Your task to perform on an android device: empty trash in the gmail app Image 0: 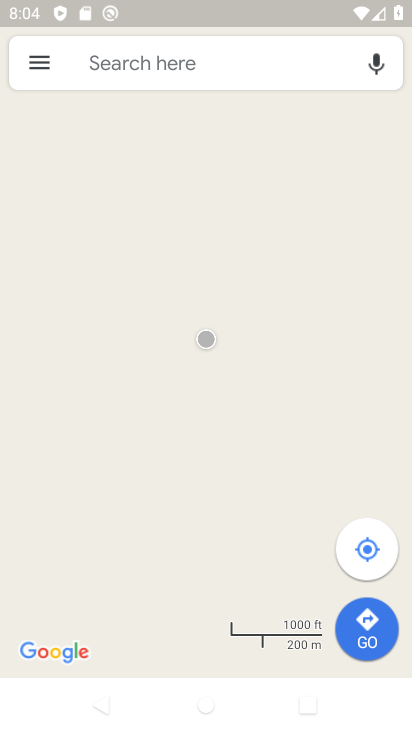
Step 0: press home button
Your task to perform on an android device: empty trash in the gmail app Image 1: 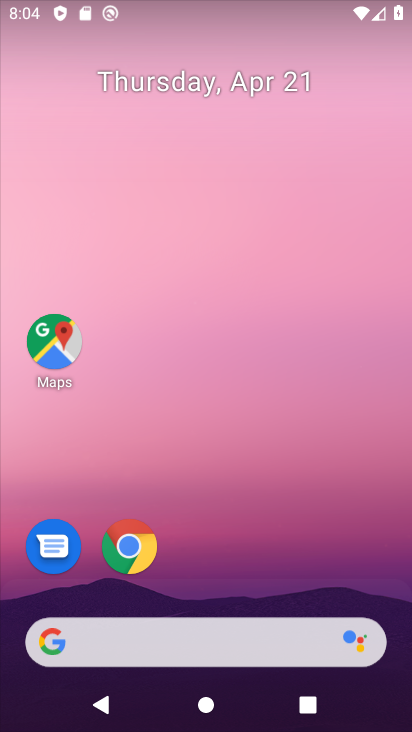
Step 1: drag from (198, 594) to (215, 4)
Your task to perform on an android device: empty trash in the gmail app Image 2: 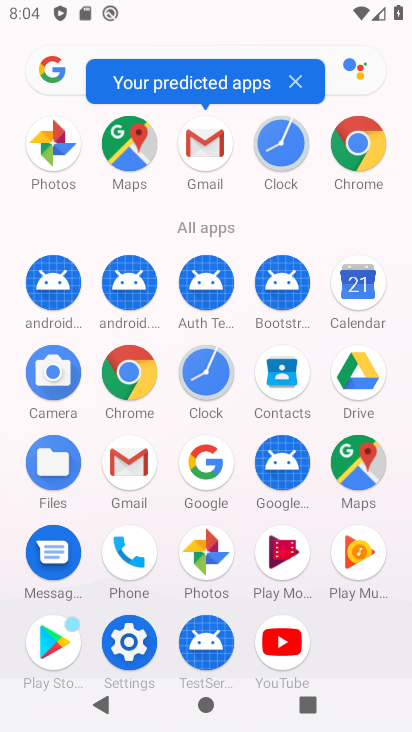
Step 2: click (204, 156)
Your task to perform on an android device: empty trash in the gmail app Image 3: 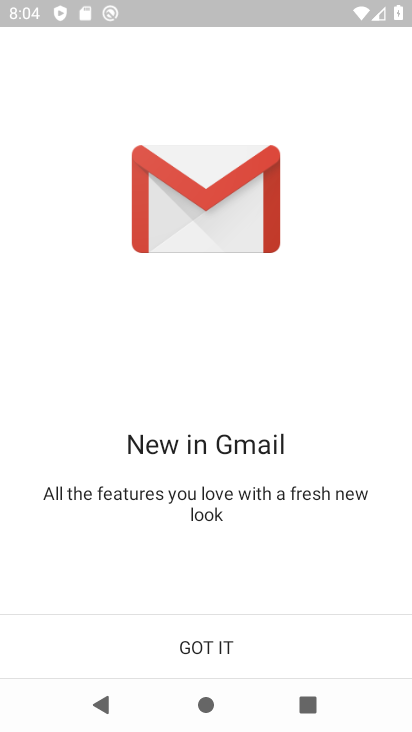
Step 3: click (204, 632)
Your task to perform on an android device: empty trash in the gmail app Image 4: 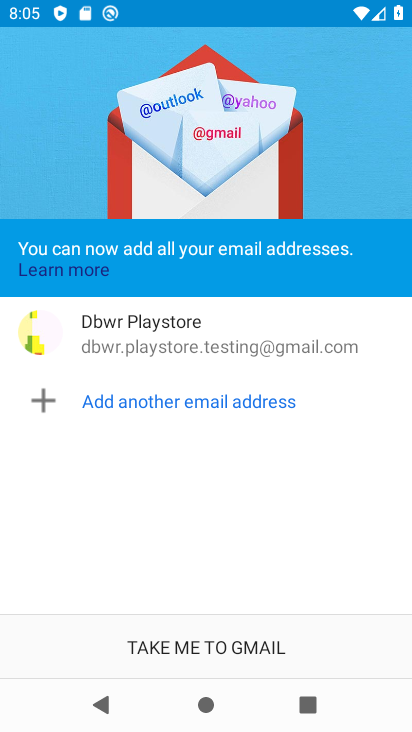
Step 4: click (202, 642)
Your task to perform on an android device: empty trash in the gmail app Image 5: 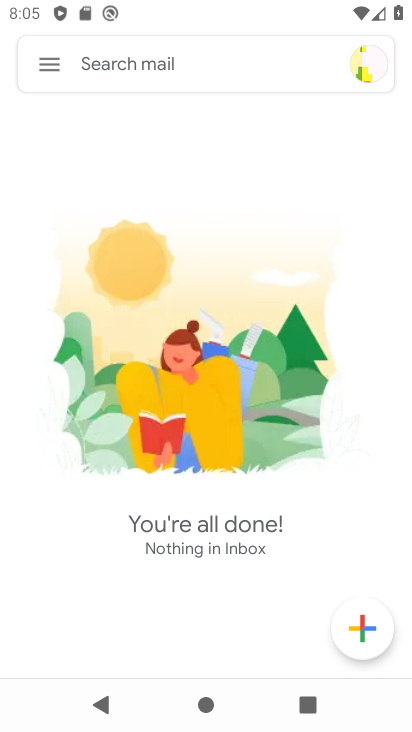
Step 5: click (53, 73)
Your task to perform on an android device: empty trash in the gmail app Image 6: 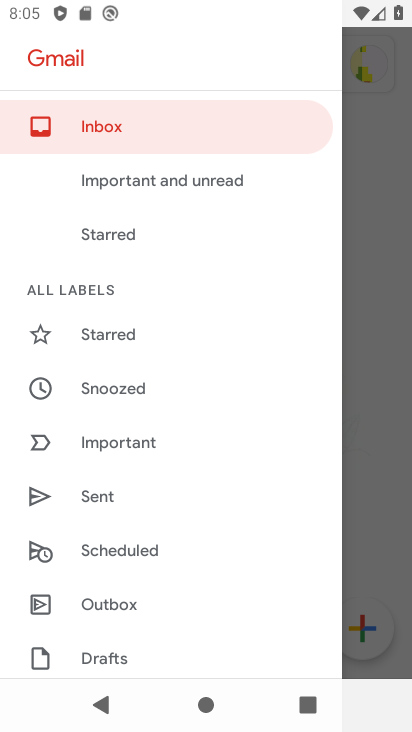
Step 6: drag from (97, 600) to (147, 287)
Your task to perform on an android device: empty trash in the gmail app Image 7: 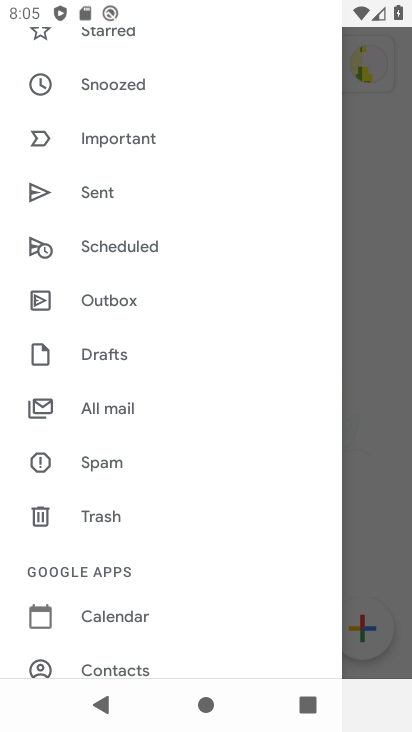
Step 7: click (112, 516)
Your task to perform on an android device: empty trash in the gmail app Image 8: 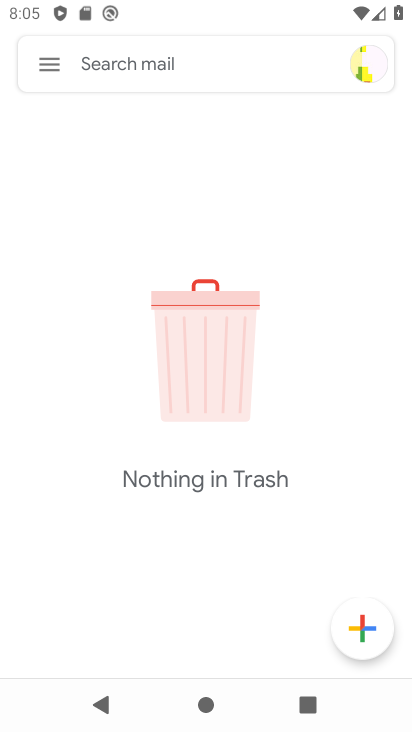
Step 8: task complete